Your task to perform on an android device: turn off priority inbox in the gmail app Image 0: 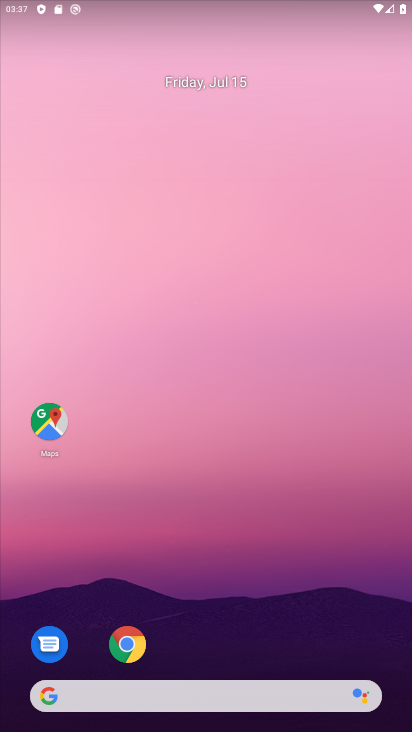
Step 0: drag from (311, 647) to (172, 10)
Your task to perform on an android device: turn off priority inbox in the gmail app Image 1: 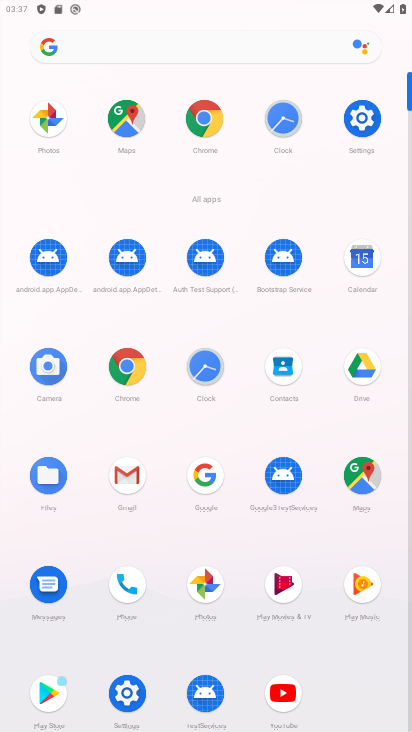
Step 1: click (141, 503)
Your task to perform on an android device: turn off priority inbox in the gmail app Image 2: 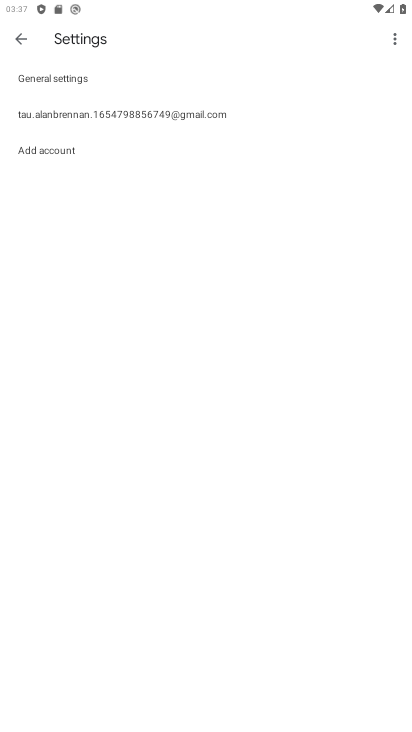
Step 2: click (175, 128)
Your task to perform on an android device: turn off priority inbox in the gmail app Image 3: 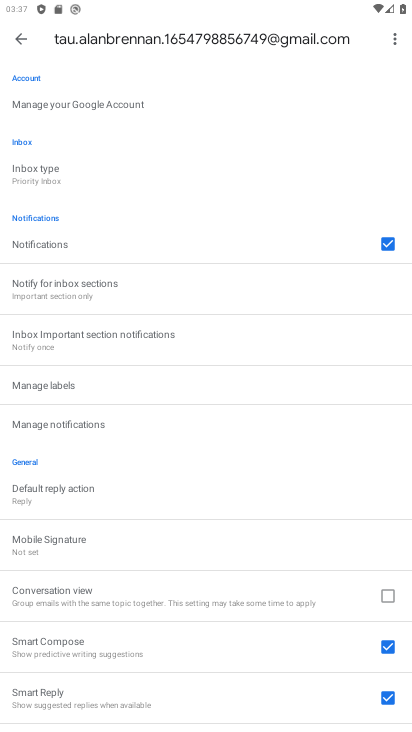
Step 3: click (211, 172)
Your task to perform on an android device: turn off priority inbox in the gmail app Image 4: 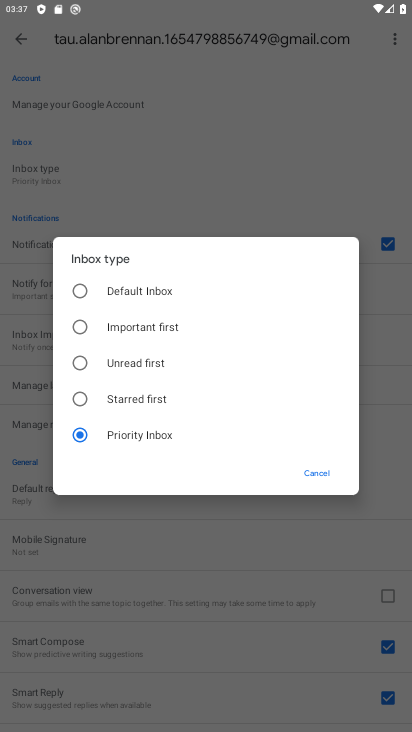
Step 4: click (135, 293)
Your task to perform on an android device: turn off priority inbox in the gmail app Image 5: 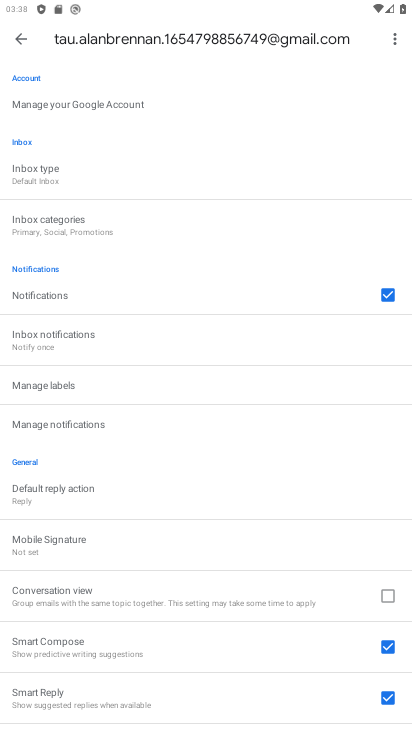
Step 5: task complete